Your task to perform on an android device: Go to ESPN.com Image 0: 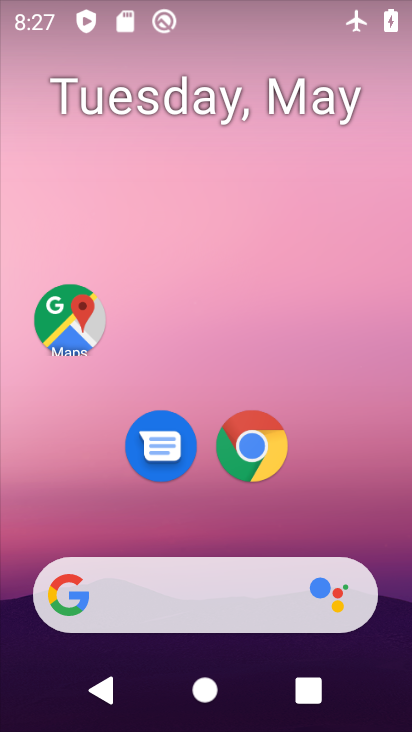
Step 0: drag from (392, 562) to (396, 210)
Your task to perform on an android device: Go to ESPN.com Image 1: 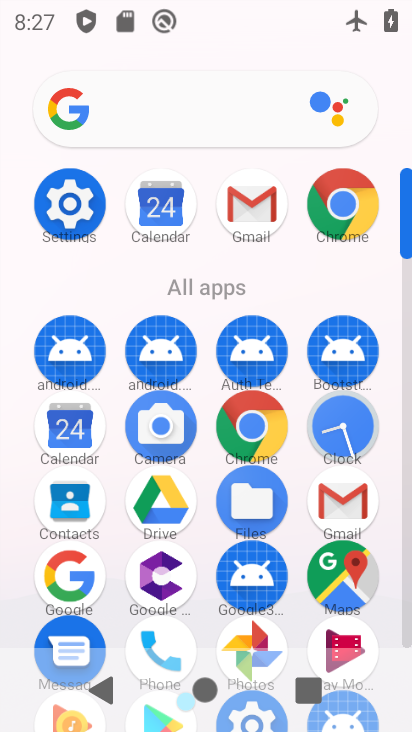
Step 1: click (266, 439)
Your task to perform on an android device: Go to ESPN.com Image 2: 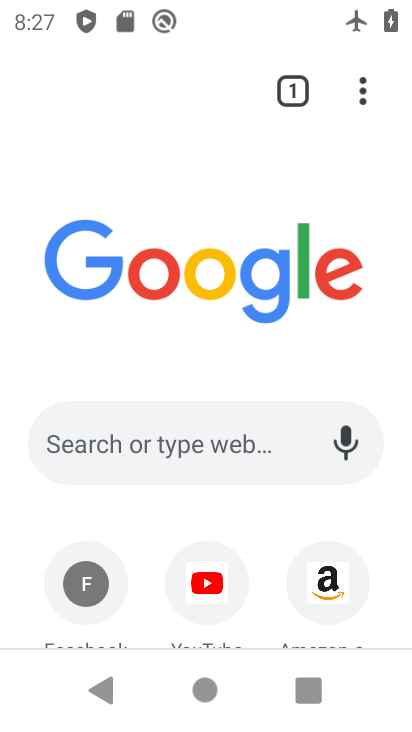
Step 2: drag from (260, 531) to (272, 291)
Your task to perform on an android device: Go to ESPN.com Image 3: 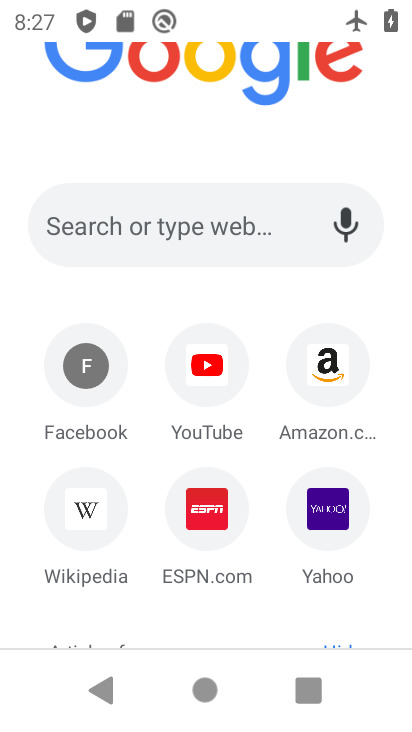
Step 3: click (248, 239)
Your task to perform on an android device: Go to ESPN.com Image 4: 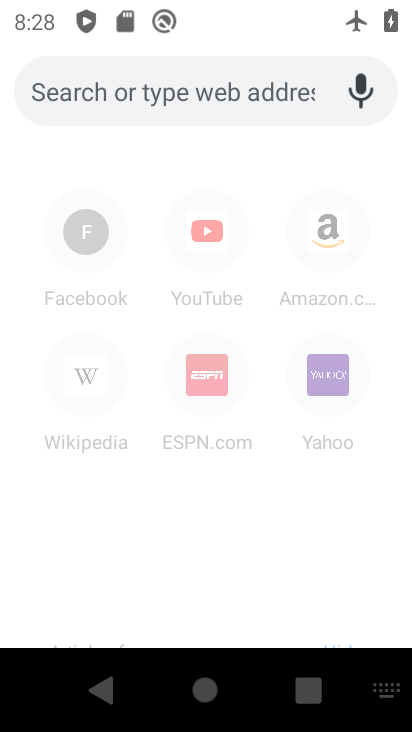
Step 4: type "espn.com"
Your task to perform on an android device: Go to ESPN.com Image 5: 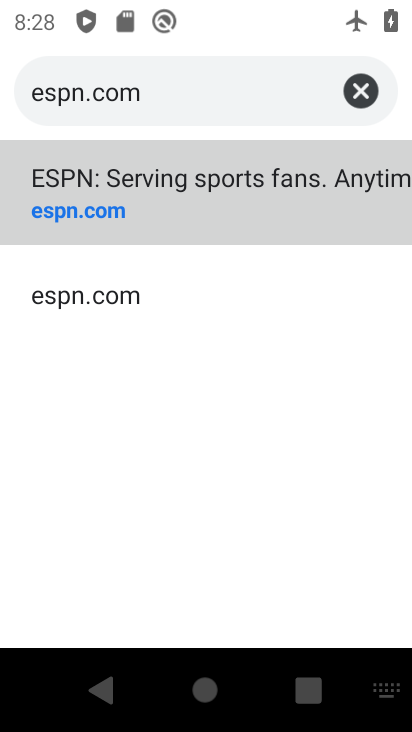
Step 5: click (166, 279)
Your task to perform on an android device: Go to ESPN.com Image 6: 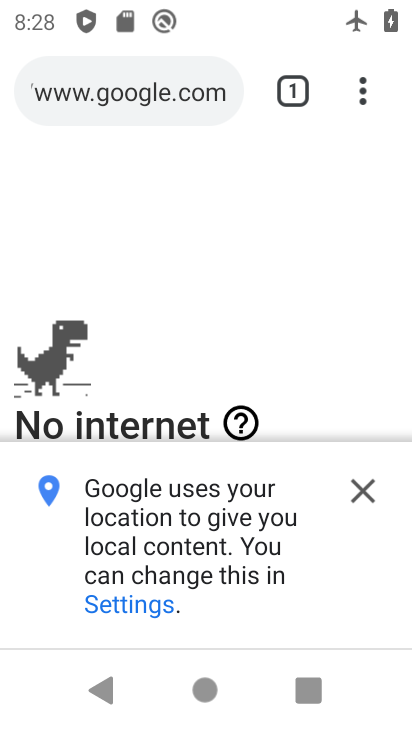
Step 6: task complete